Your task to perform on an android device: Open my contact list Image 0: 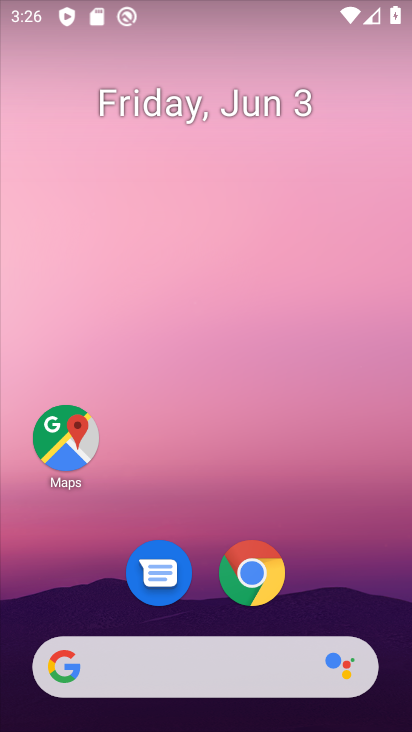
Step 0: drag from (394, 712) to (400, 243)
Your task to perform on an android device: Open my contact list Image 1: 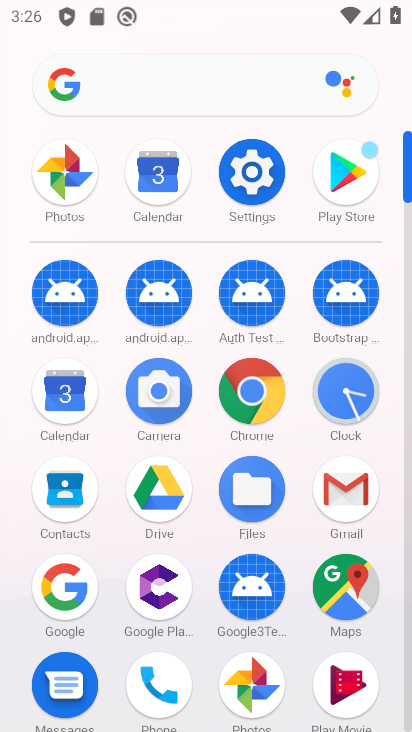
Step 1: click (68, 491)
Your task to perform on an android device: Open my contact list Image 2: 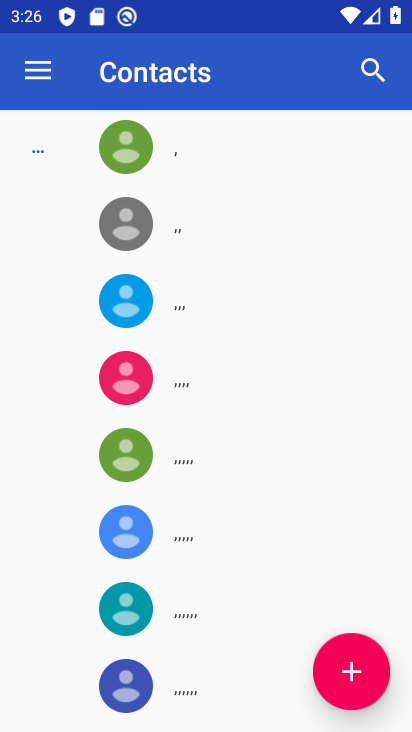
Step 2: drag from (216, 697) to (206, 250)
Your task to perform on an android device: Open my contact list Image 3: 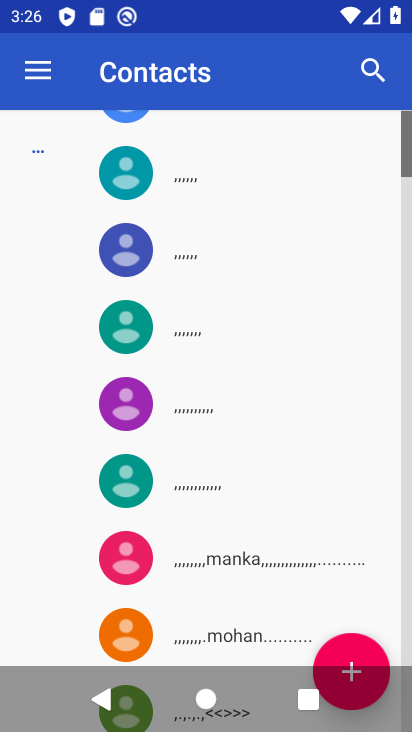
Step 3: drag from (255, 634) to (258, 283)
Your task to perform on an android device: Open my contact list Image 4: 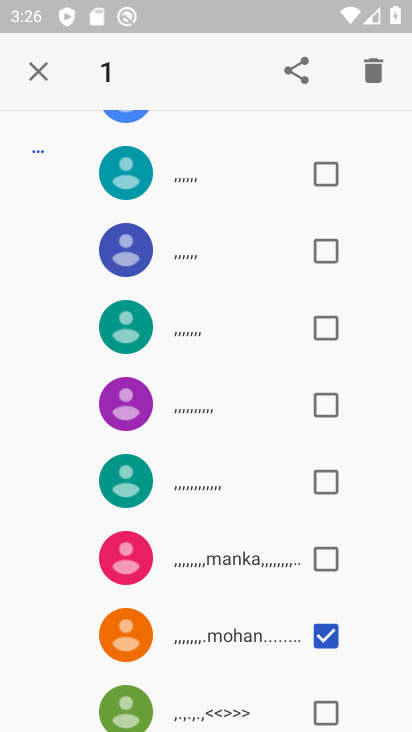
Step 4: drag from (250, 632) to (245, 305)
Your task to perform on an android device: Open my contact list Image 5: 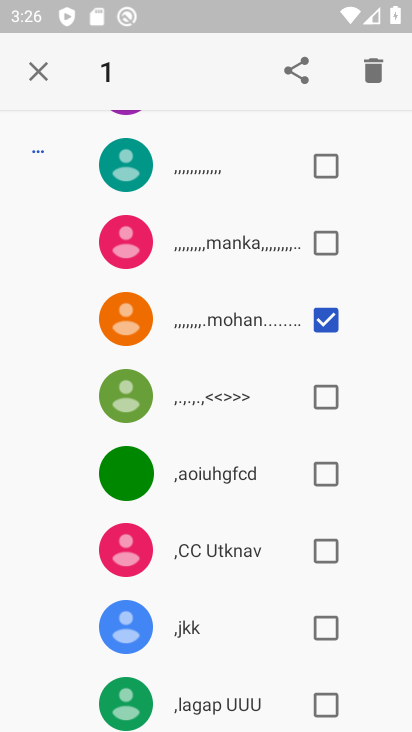
Step 5: click (313, 324)
Your task to perform on an android device: Open my contact list Image 6: 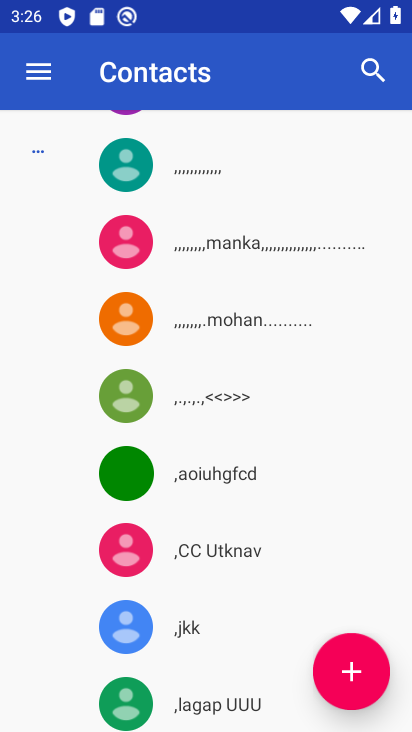
Step 6: task complete